Your task to perform on an android device: Open the stopwatch Image 0: 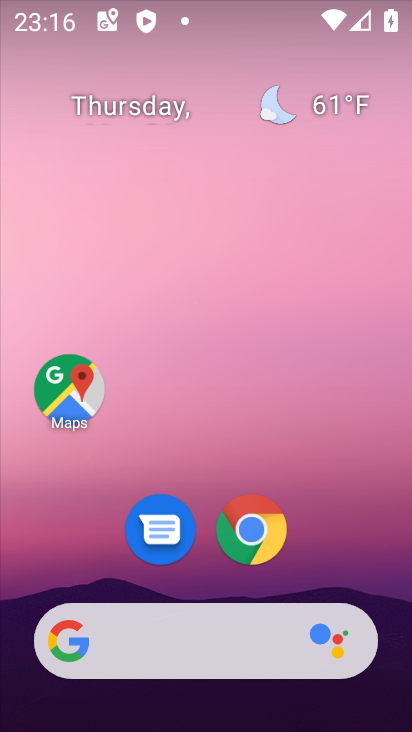
Step 0: drag from (361, 535) to (338, 85)
Your task to perform on an android device: Open the stopwatch Image 1: 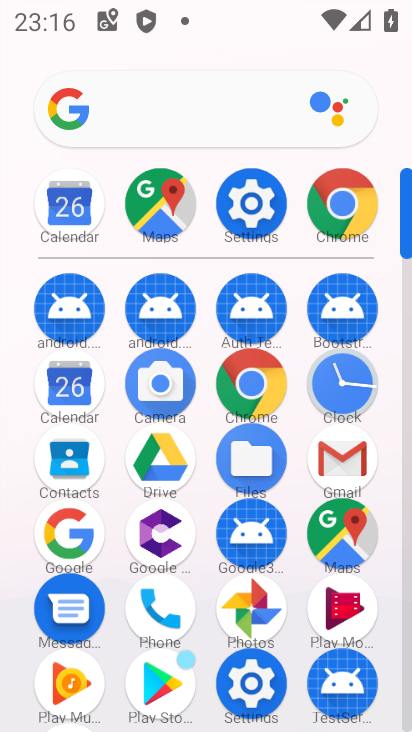
Step 1: click (252, 178)
Your task to perform on an android device: Open the stopwatch Image 2: 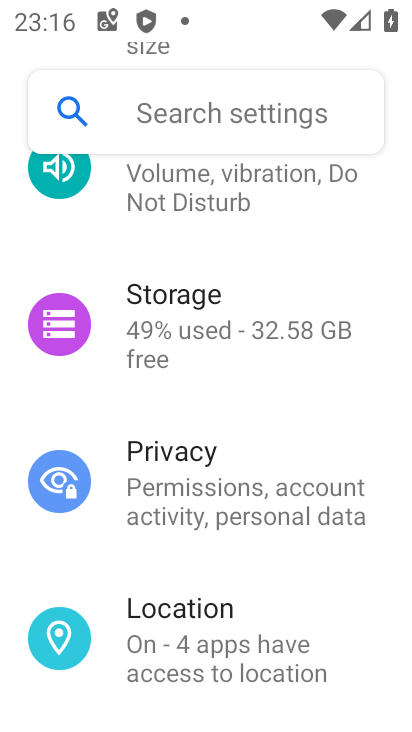
Step 2: press home button
Your task to perform on an android device: Open the stopwatch Image 3: 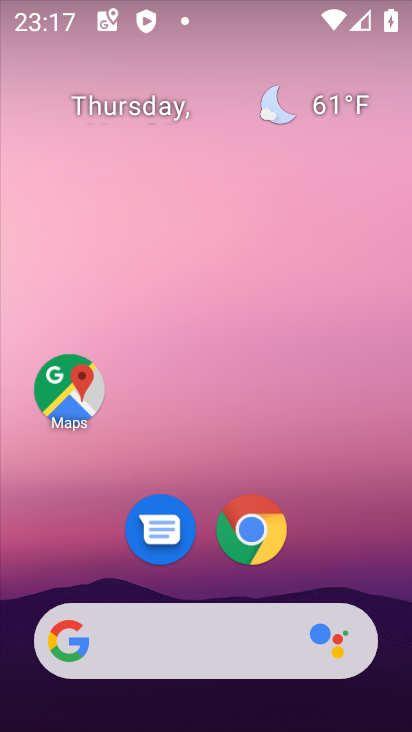
Step 3: drag from (334, 523) to (339, 115)
Your task to perform on an android device: Open the stopwatch Image 4: 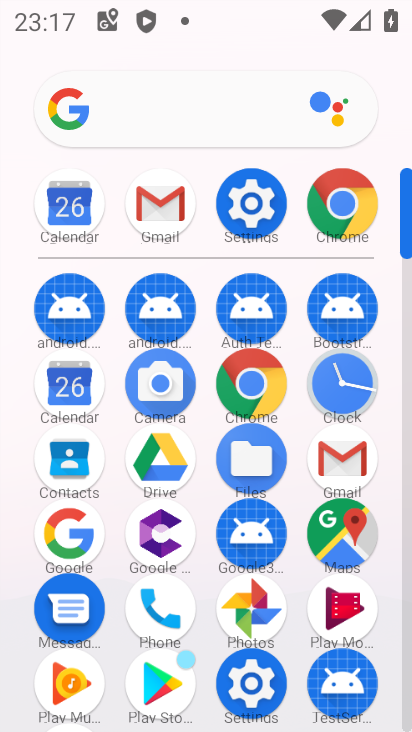
Step 4: click (342, 379)
Your task to perform on an android device: Open the stopwatch Image 5: 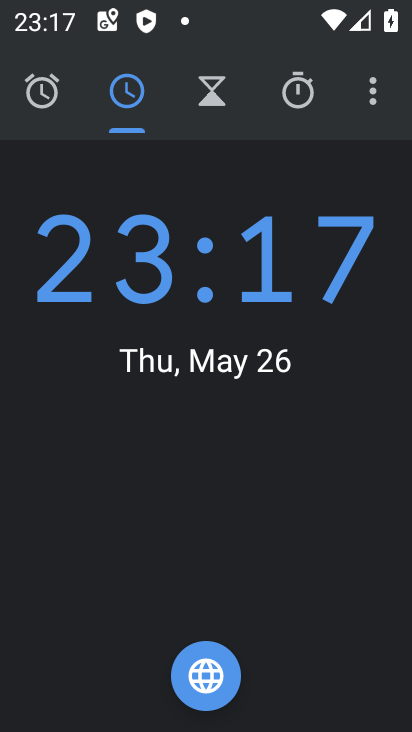
Step 5: click (286, 92)
Your task to perform on an android device: Open the stopwatch Image 6: 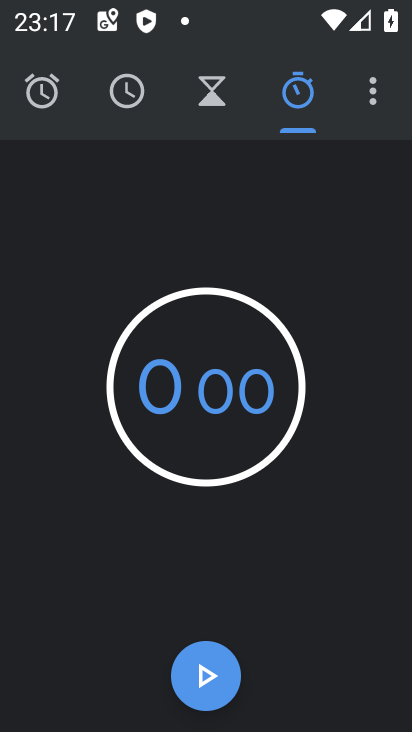
Step 6: task complete